Your task to perform on an android device: turn off notifications in google photos Image 0: 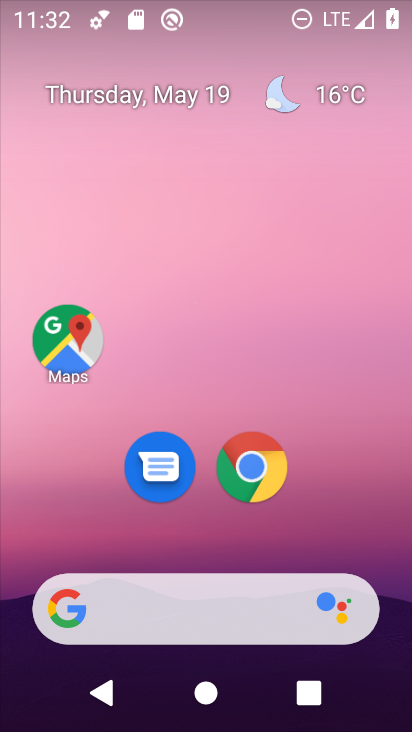
Step 0: drag from (296, 530) to (350, 188)
Your task to perform on an android device: turn off notifications in google photos Image 1: 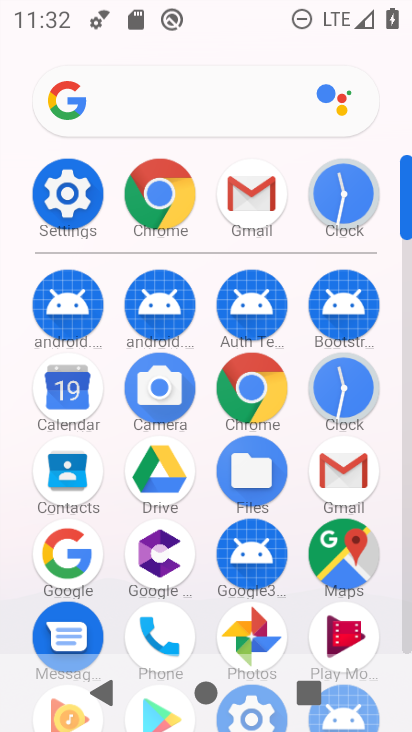
Step 1: click (236, 636)
Your task to perform on an android device: turn off notifications in google photos Image 2: 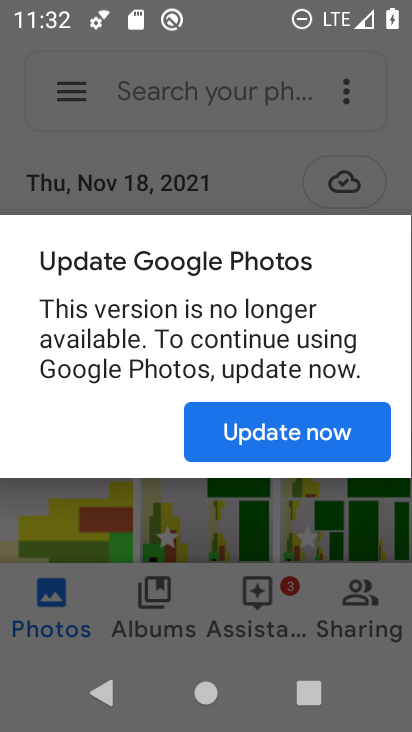
Step 2: click (285, 421)
Your task to perform on an android device: turn off notifications in google photos Image 3: 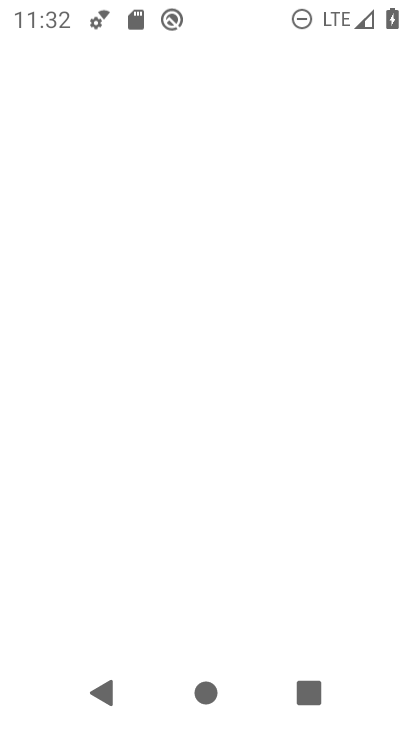
Step 3: press back button
Your task to perform on an android device: turn off notifications in google photos Image 4: 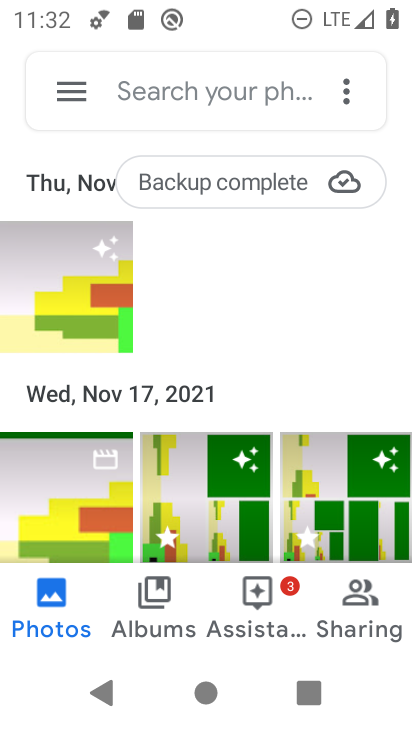
Step 4: click (63, 84)
Your task to perform on an android device: turn off notifications in google photos Image 5: 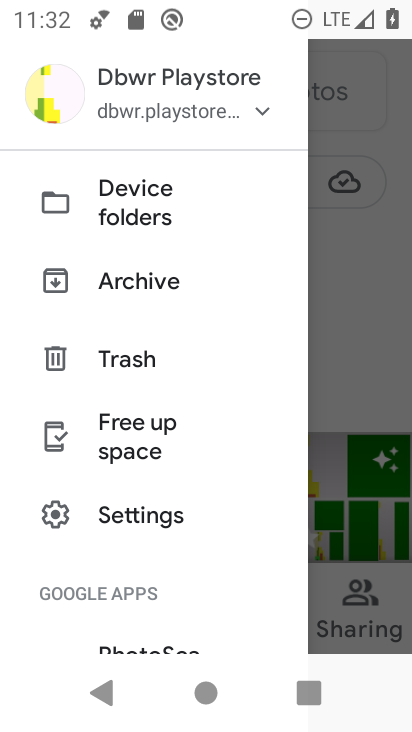
Step 5: click (149, 507)
Your task to perform on an android device: turn off notifications in google photos Image 6: 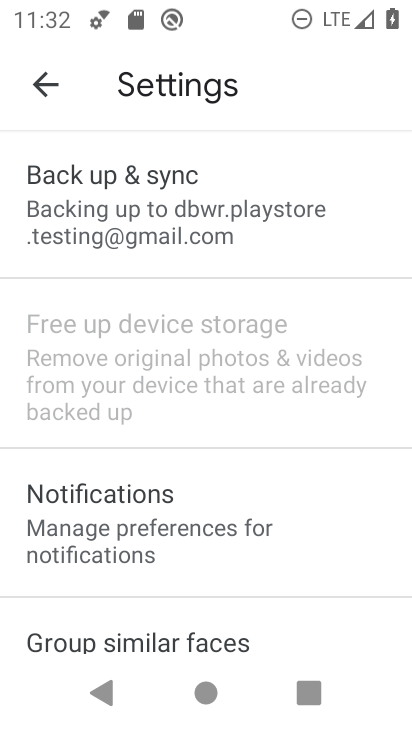
Step 6: click (178, 542)
Your task to perform on an android device: turn off notifications in google photos Image 7: 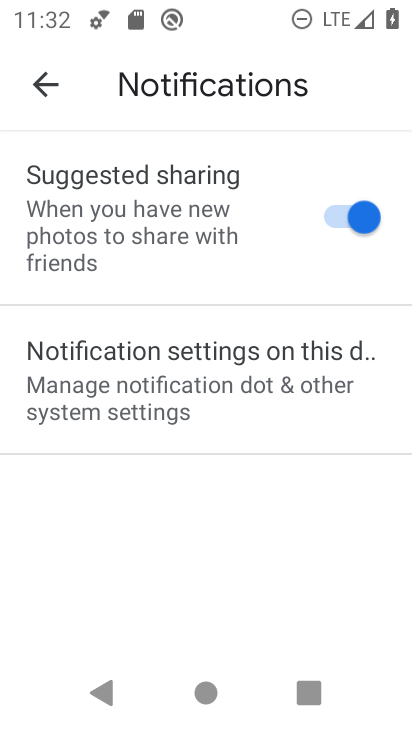
Step 7: click (134, 388)
Your task to perform on an android device: turn off notifications in google photos Image 8: 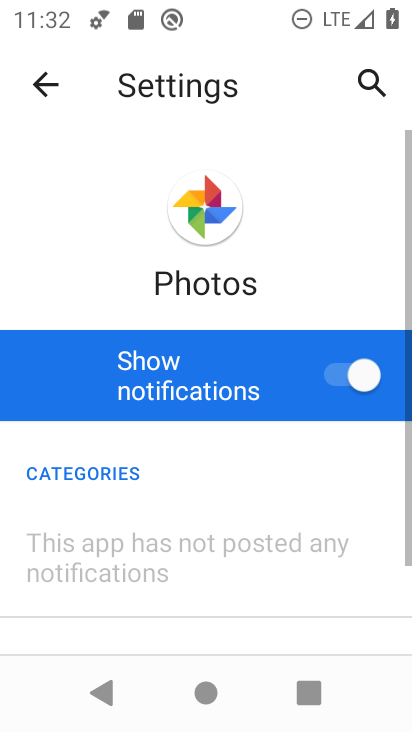
Step 8: click (339, 369)
Your task to perform on an android device: turn off notifications in google photos Image 9: 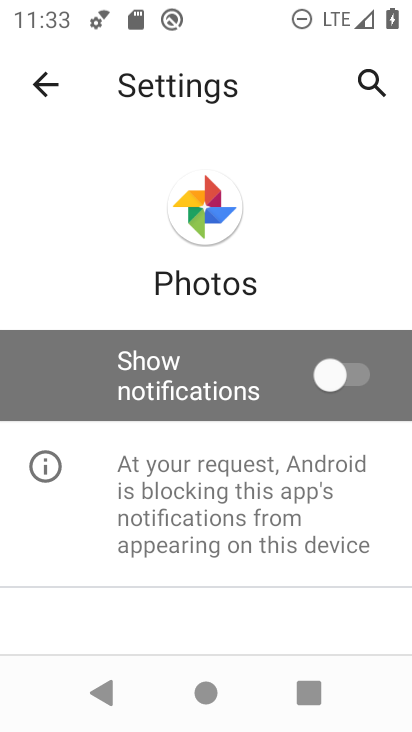
Step 9: task complete